Your task to perform on an android device: see tabs open on other devices in the chrome app Image 0: 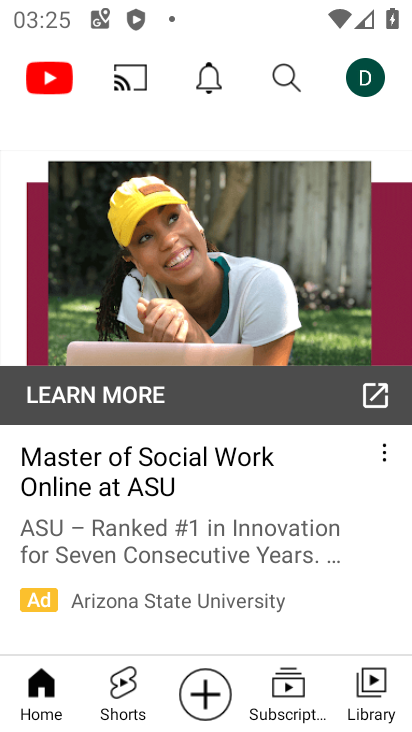
Step 0: press home button
Your task to perform on an android device: see tabs open on other devices in the chrome app Image 1: 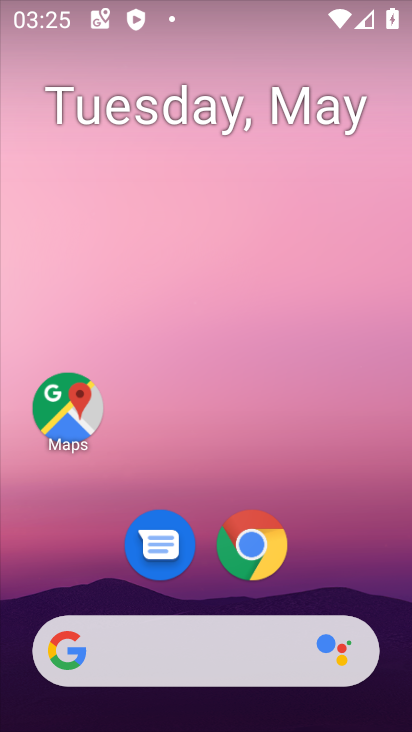
Step 1: click (247, 543)
Your task to perform on an android device: see tabs open on other devices in the chrome app Image 2: 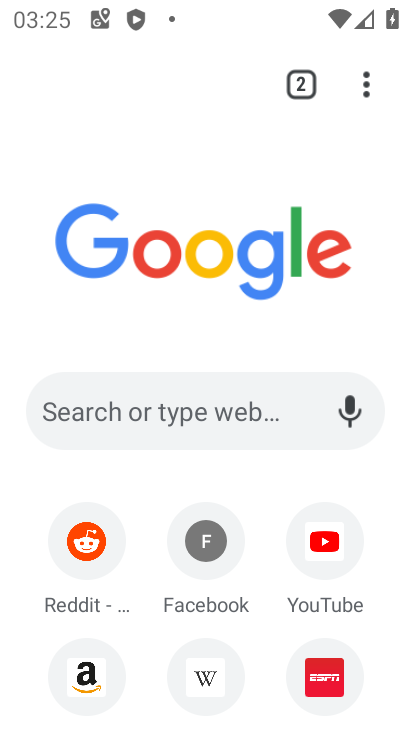
Step 2: click (364, 87)
Your task to perform on an android device: see tabs open on other devices in the chrome app Image 3: 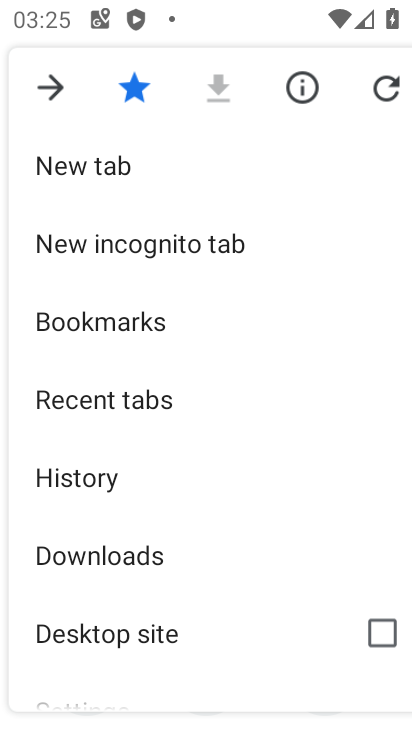
Step 3: click (83, 397)
Your task to perform on an android device: see tabs open on other devices in the chrome app Image 4: 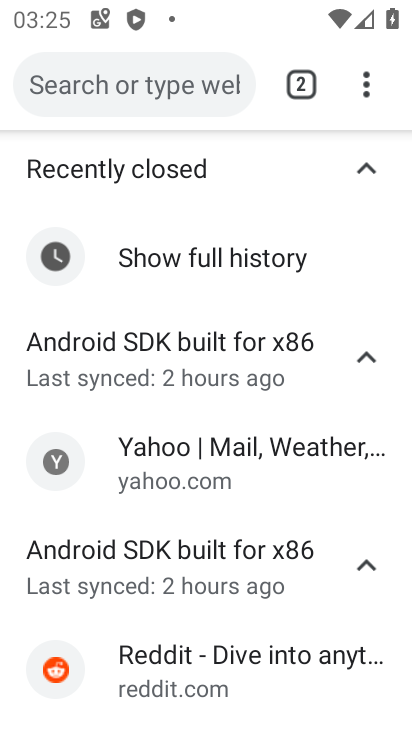
Step 4: task complete